Your task to perform on an android device: Go to CNN.com Image 0: 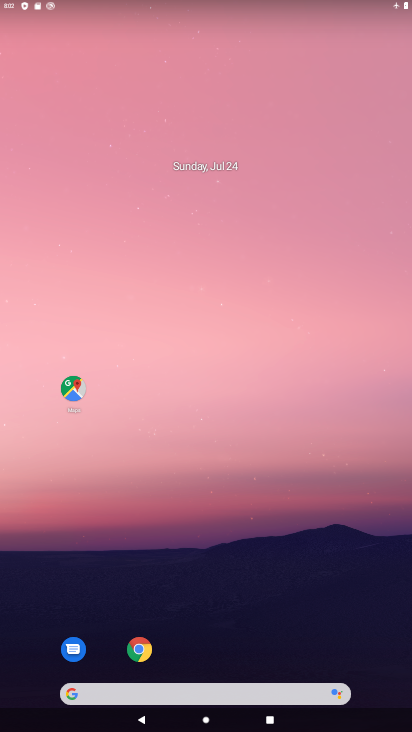
Step 0: drag from (196, 670) to (170, 33)
Your task to perform on an android device: Go to CNN.com Image 1: 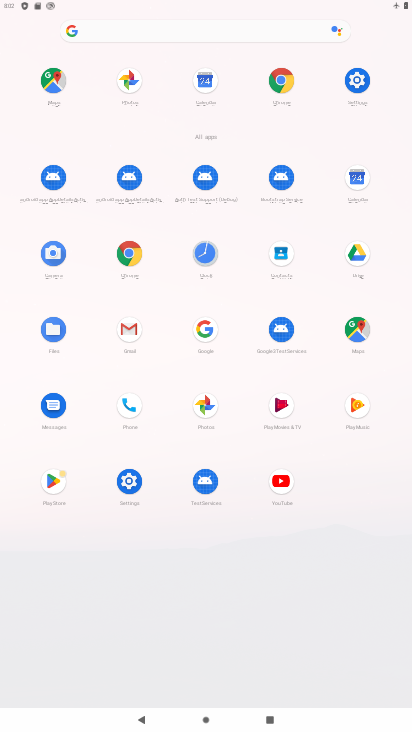
Step 1: click (136, 251)
Your task to perform on an android device: Go to CNN.com Image 2: 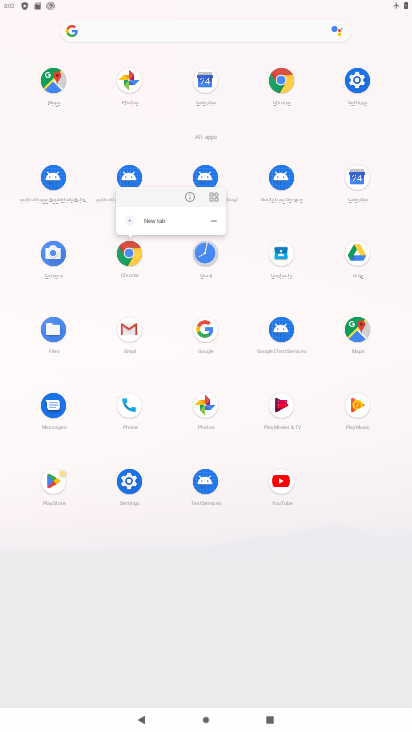
Step 2: click (118, 262)
Your task to perform on an android device: Go to CNN.com Image 3: 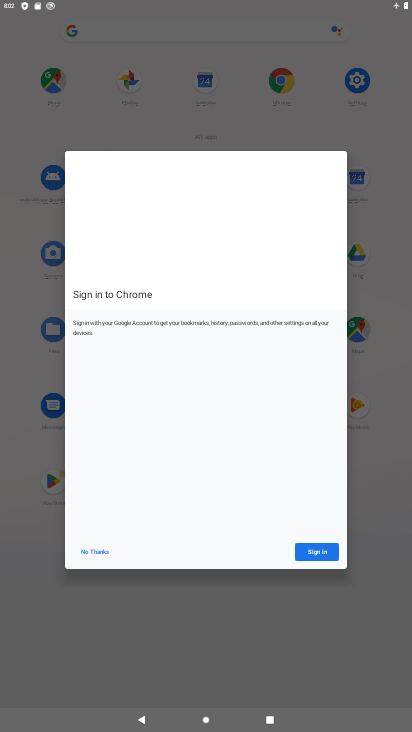
Step 3: click (307, 562)
Your task to perform on an android device: Go to CNN.com Image 4: 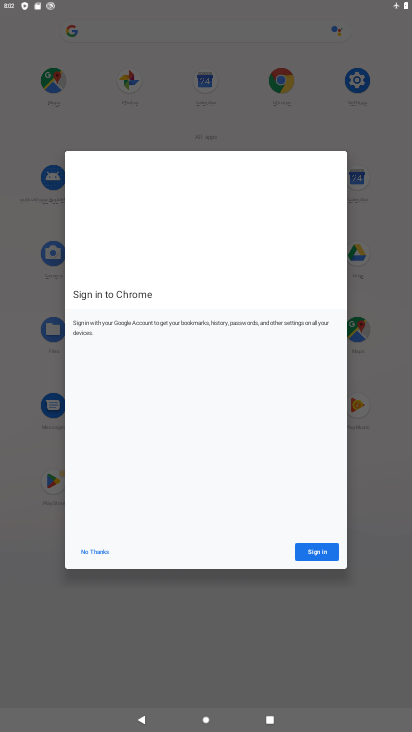
Step 4: click (306, 549)
Your task to perform on an android device: Go to CNN.com Image 5: 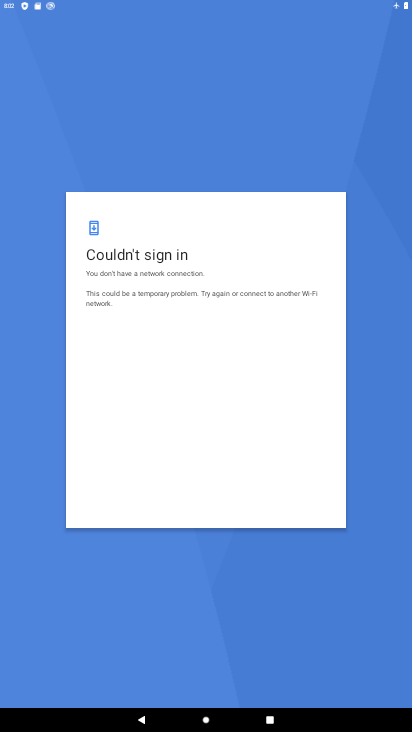
Step 5: task complete